Your task to perform on an android device: change alarm snooze length Image 0: 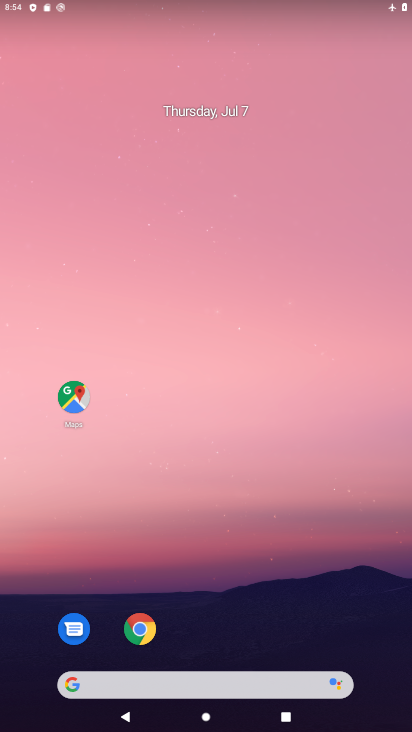
Step 0: drag from (229, 576) to (148, 92)
Your task to perform on an android device: change alarm snooze length Image 1: 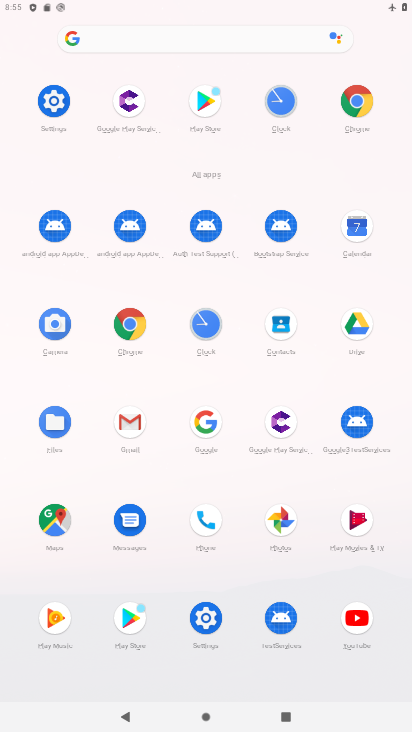
Step 1: click (281, 94)
Your task to perform on an android device: change alarm snooze length Image 2: 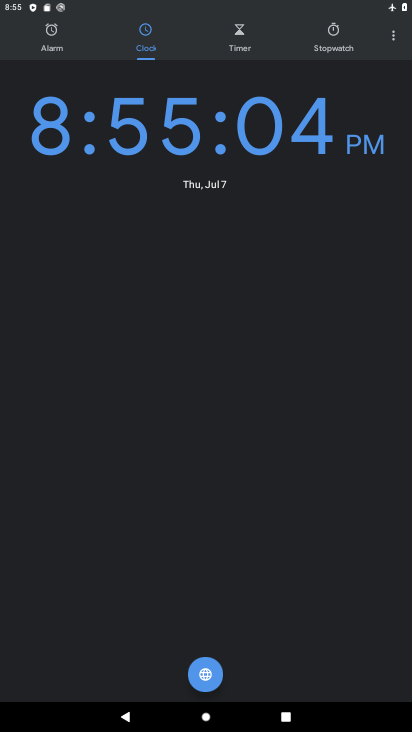
Step 2: click (393, 38)
Your task to perform on an android device: change alarm snooze length Image 3: 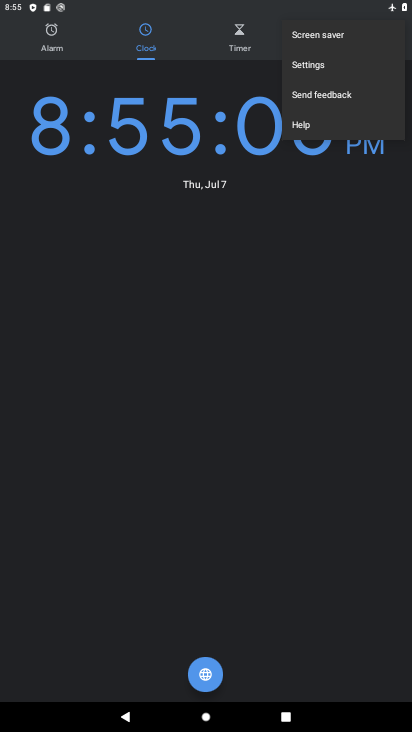
Step 3: click (309, 70)
Your task to perform on an android device: change alarm snooze length Image 4: 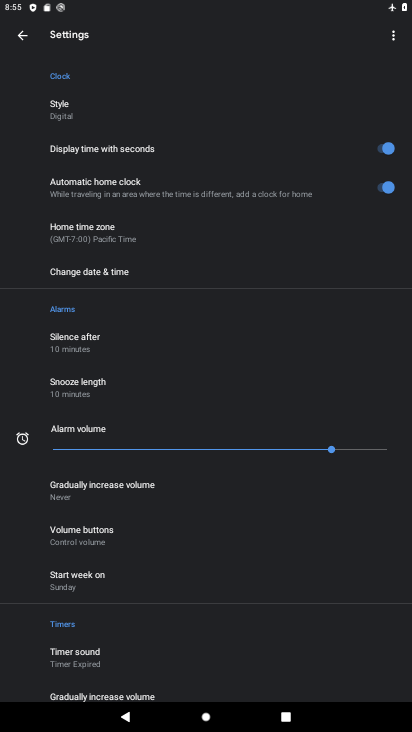
Step 4: click (78, 386)
Your task to perform on an android device: change alarm snooze length Image 5: 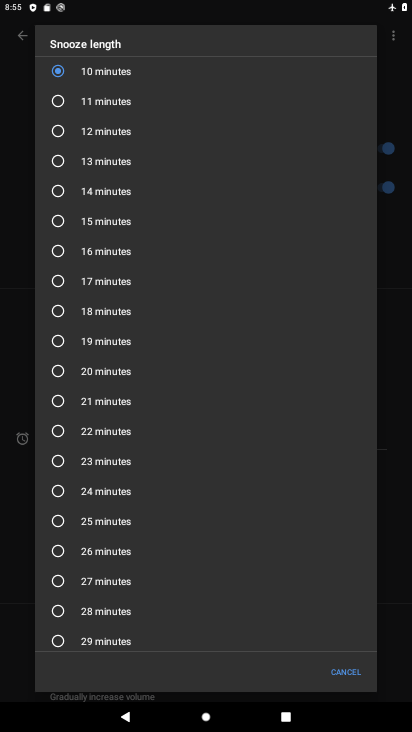
Step 5: click (55, 99)
Your task to perform on an android device: change alarm snooze length Image 6: 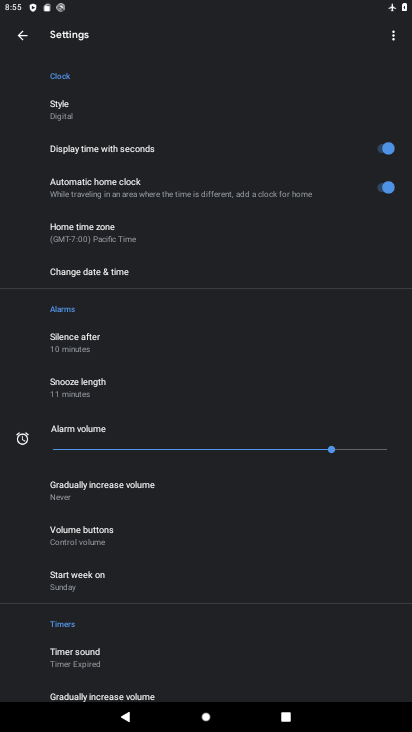
Step 6: task complete